Your task to perform on an android device: open the mobile data screen to see how much data has been used Image 0: 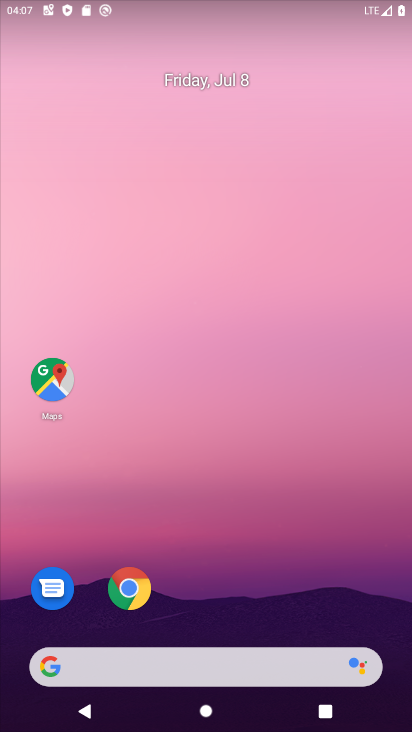
Step 0: drag from (203, 566) to (201, 141)
Your task to perform on an android device: open the mobile data screen to see how much data has been used Image 1: 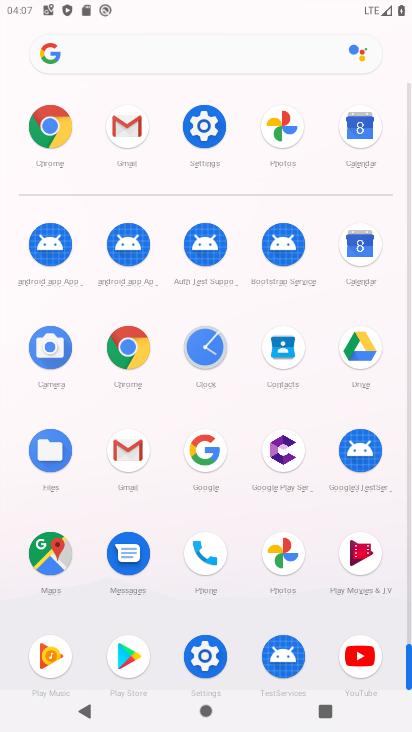
Step 1: click (201, 126)
Your task to perform on an android device: open the mobile data screen to see how much data has been used Image 2: 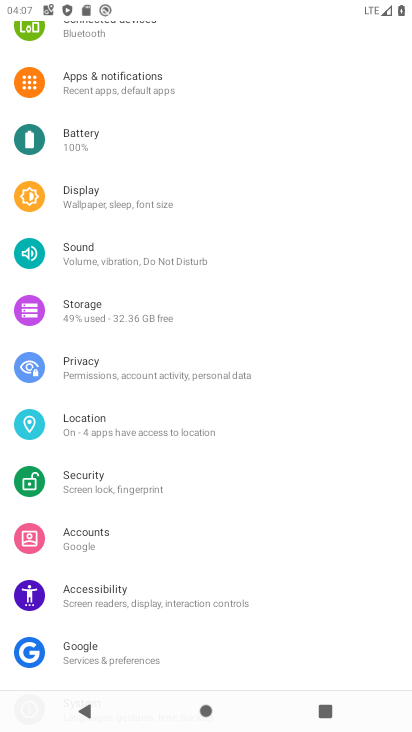
Step 2: drag from (157, 200) to (184, 725)
Your task to perform on an android device: open the mobile data screen to see how much data has been used Image 3: 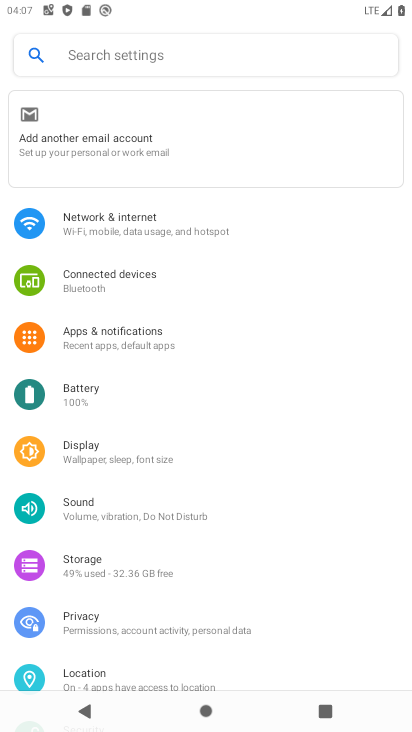
Step 3: click (127, 225)
Your task to perform on an android device: open the mobile data screen to see how much data has been used Image 4: 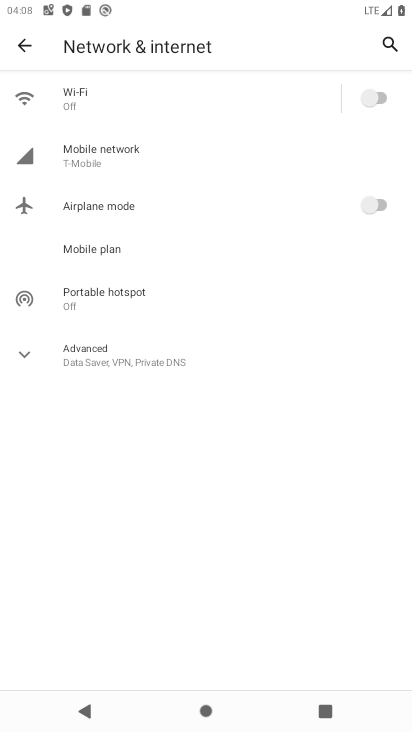
Step 4: click (131, 161)
Your task to perform on an android device: open the mobile data screen to see how much data has been used Image 5: 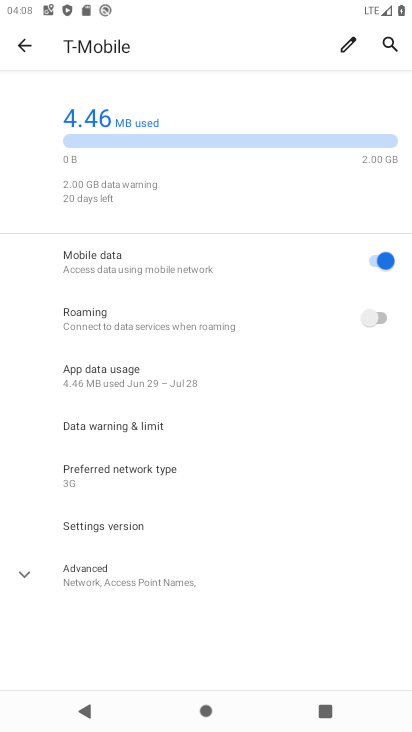
Step 5: task complete